Your task to perform on an android device: turn on data saver in the chrome app Image 0: 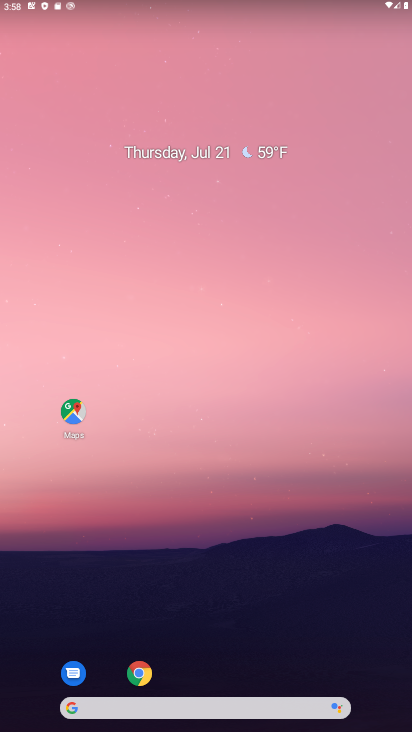
Step 0: click (137, 674)
Your task to perform on an android device: turn on data saver in the chrome app Image 1: 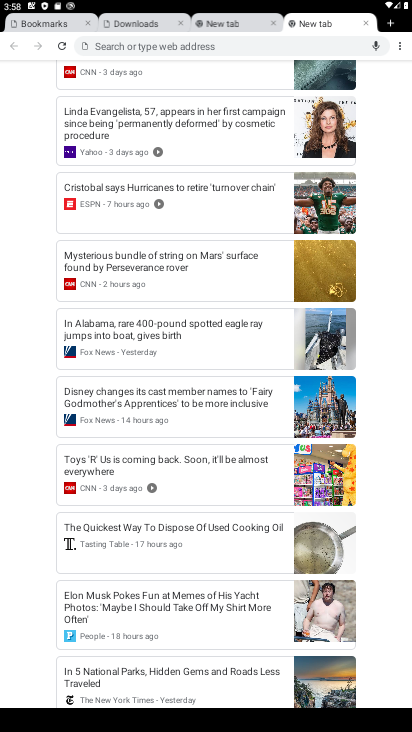
Step 1: click (400, 47)
Your task to perform on an android device: turn on data saver in the chrome app Image 2: 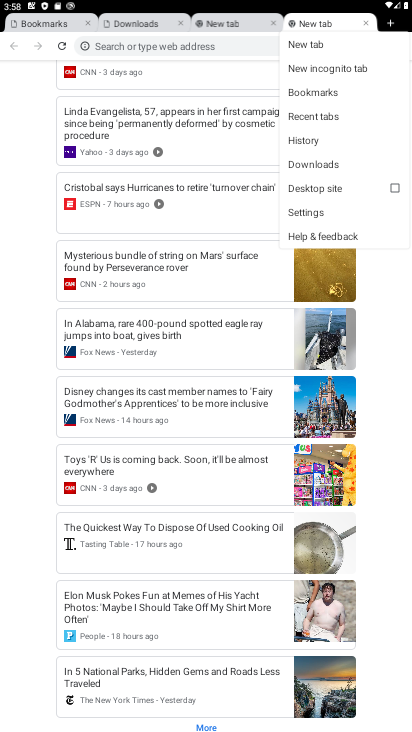
Step 2: click (311, 209)
Your task to perform on an android device: turn on data saver in the chrome app Image 3: 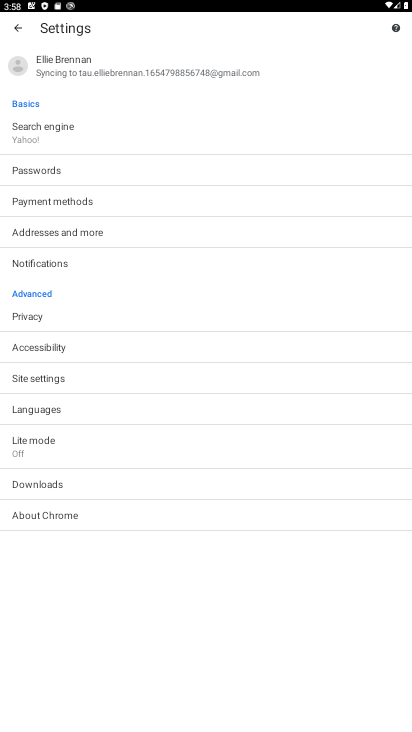
Step 3: click (24, 441)
Your task to perform on an android device: turn on data saver in the chrome app Image 4: 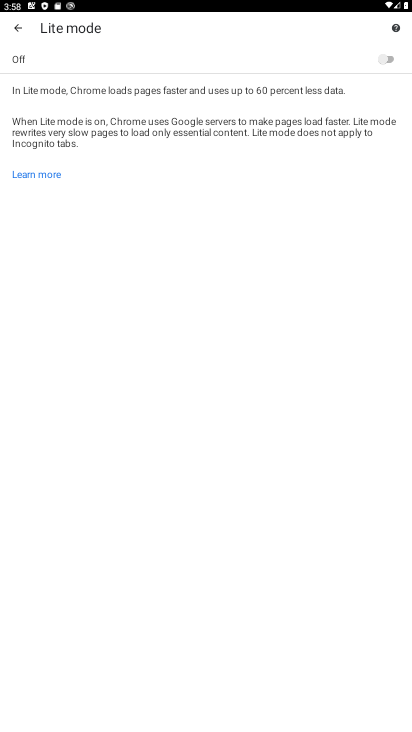
Step 4: click (391, 59)
Your task to perform on an android device: turn on data saver in the chrome app Image 5: 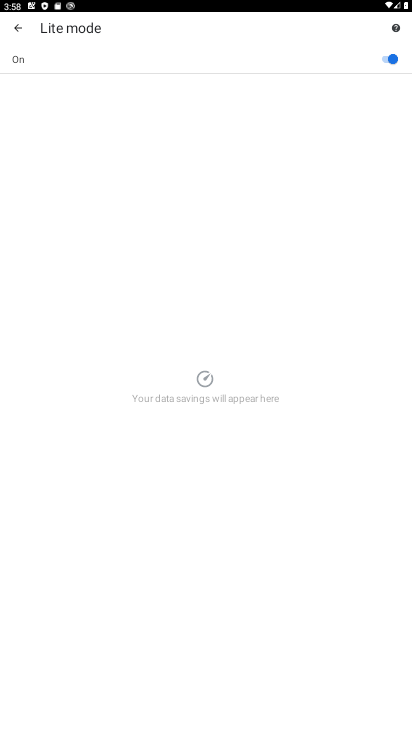
Step 5: task complete